Your task to perform on an android device: Open Google Chrome Image 0: 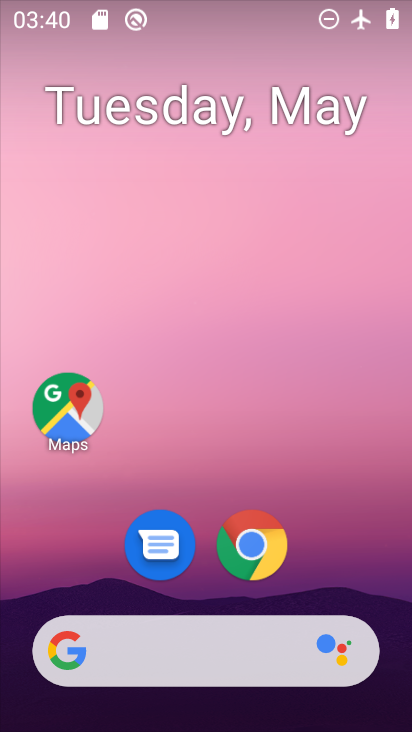
Step 0: click (252, 543)
Your task to perform on an android device: Open Google Chrome Image 1: 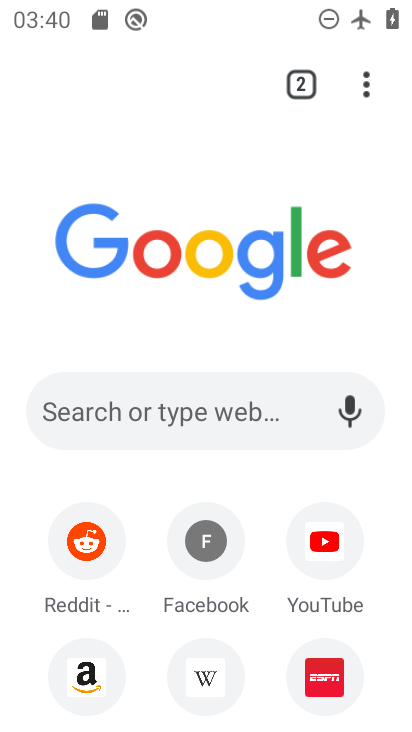
Step 1: task complete